Your task to perform on an android device: Search for "razer naga" on costco.com, select the first entry, and add it to the cart. Image 0: 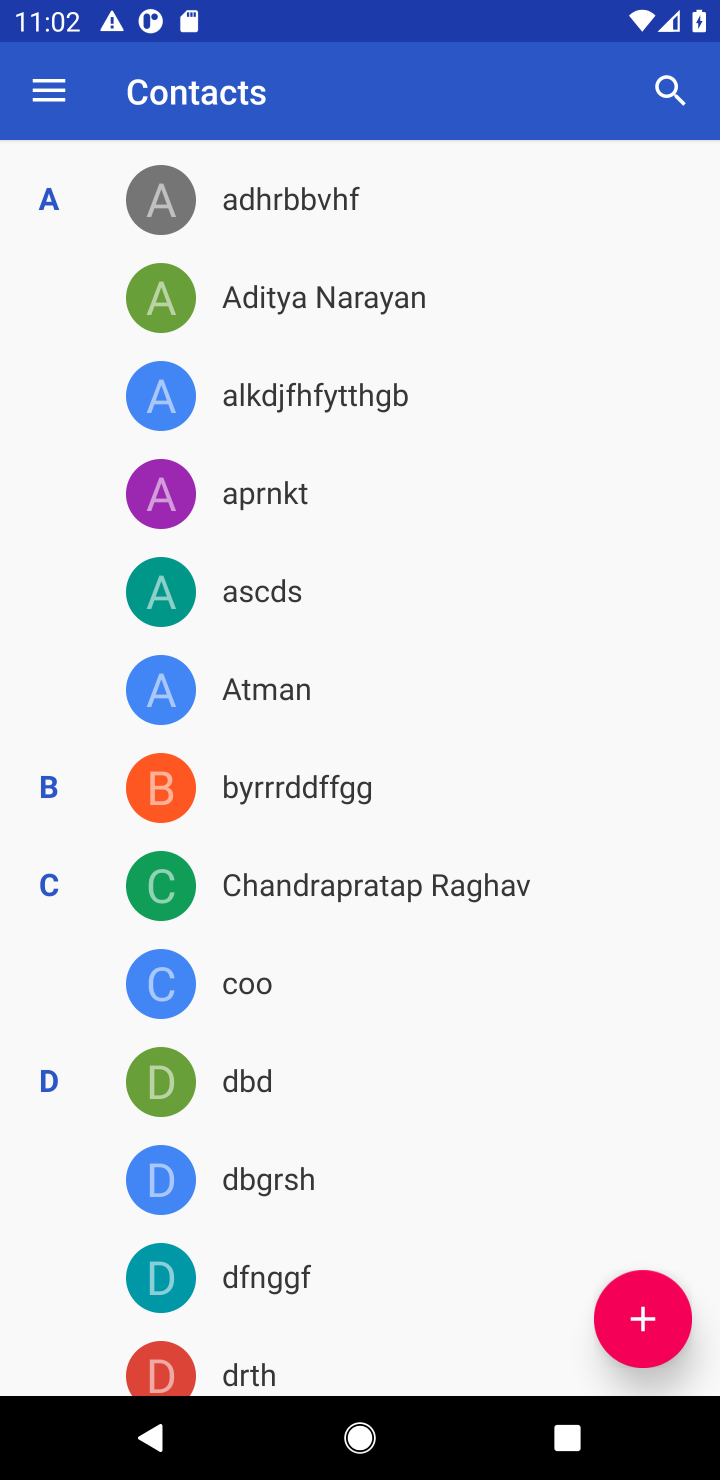
Step 0: press home button
Your task to perform on an android device: Search for "razer naga" on costco.com, select the first entry, and add it to the cart. Image 1: 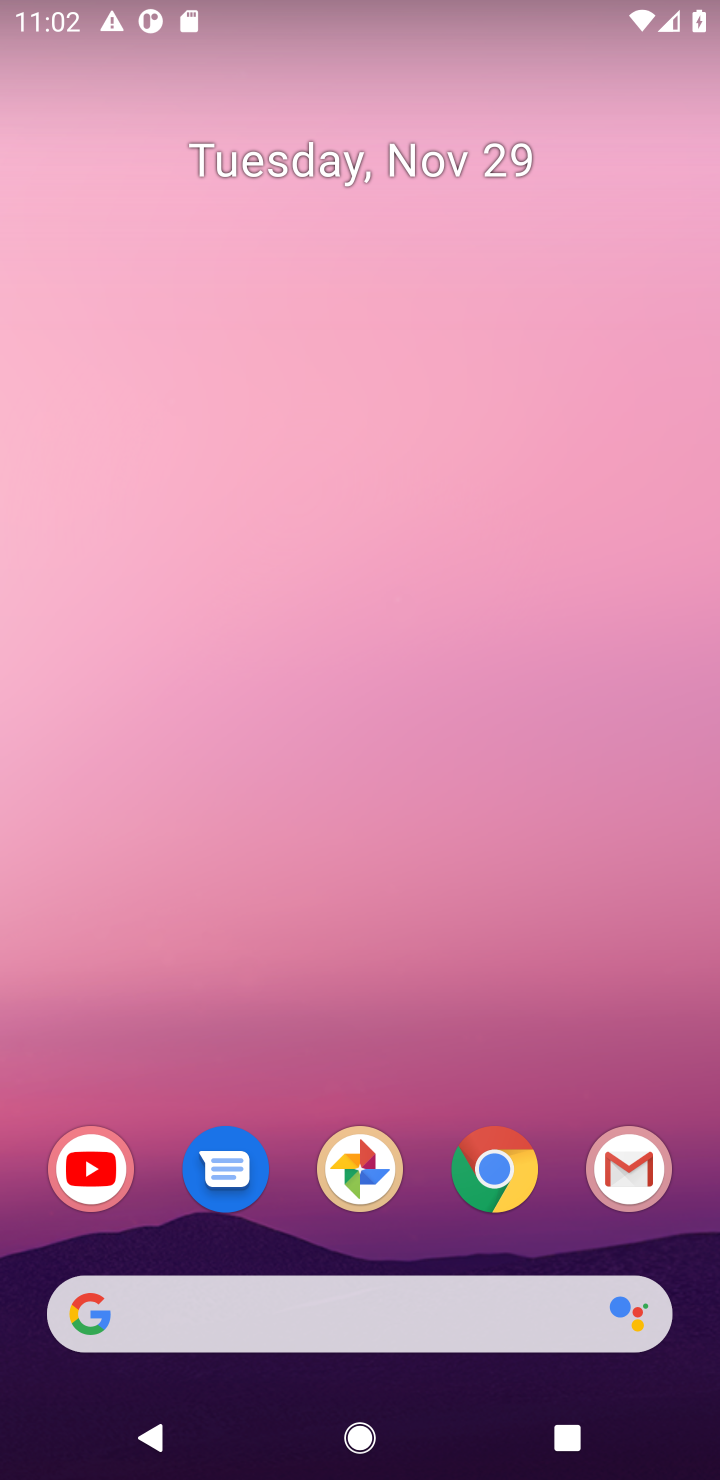
Step 1: click (377, 1345)
Your task to perform on an android device: Search for "razer naga" on costco.com, select the first entry, and add it to the cart. Image 2: 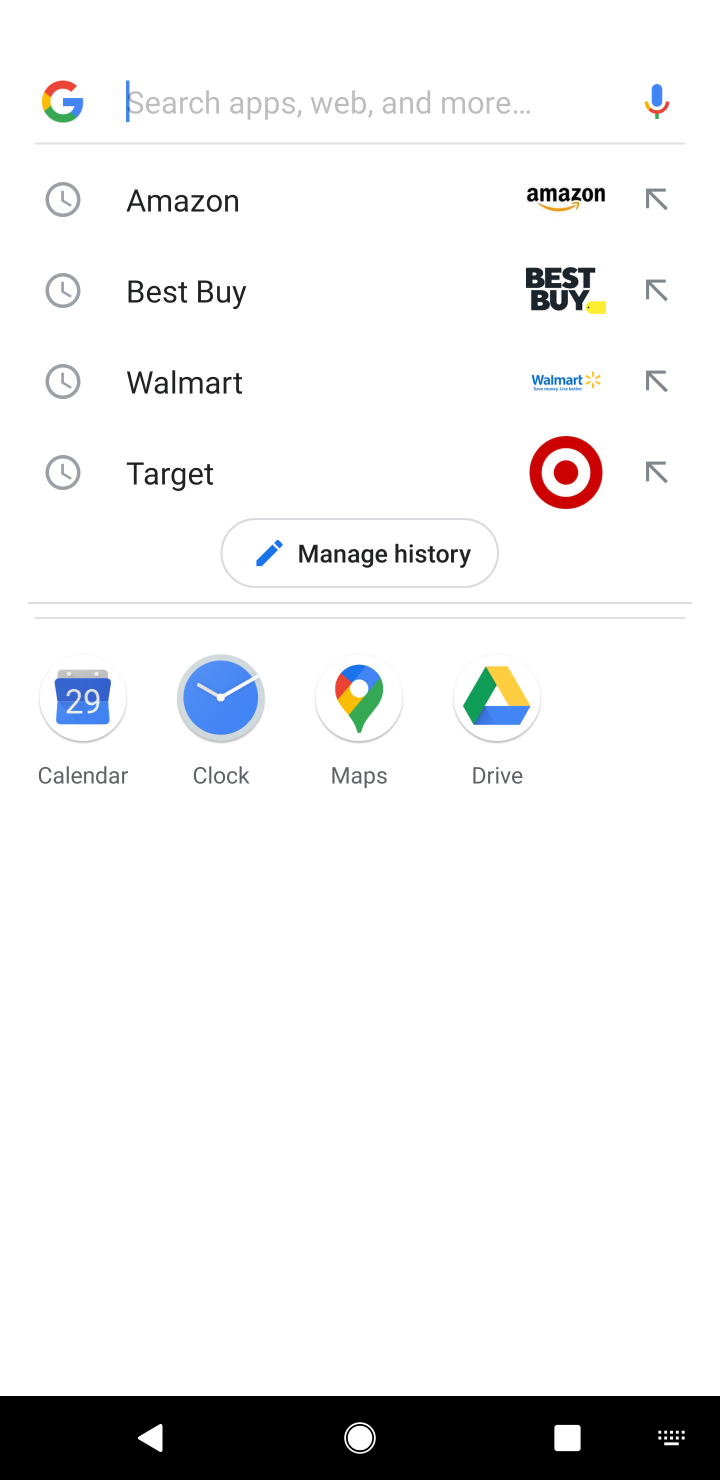
Step 2: type "costco.com"
Your task to perform on an android device: Search for "razer naga" on costco.com, select the first entry, and add it to the cart. Image 3: 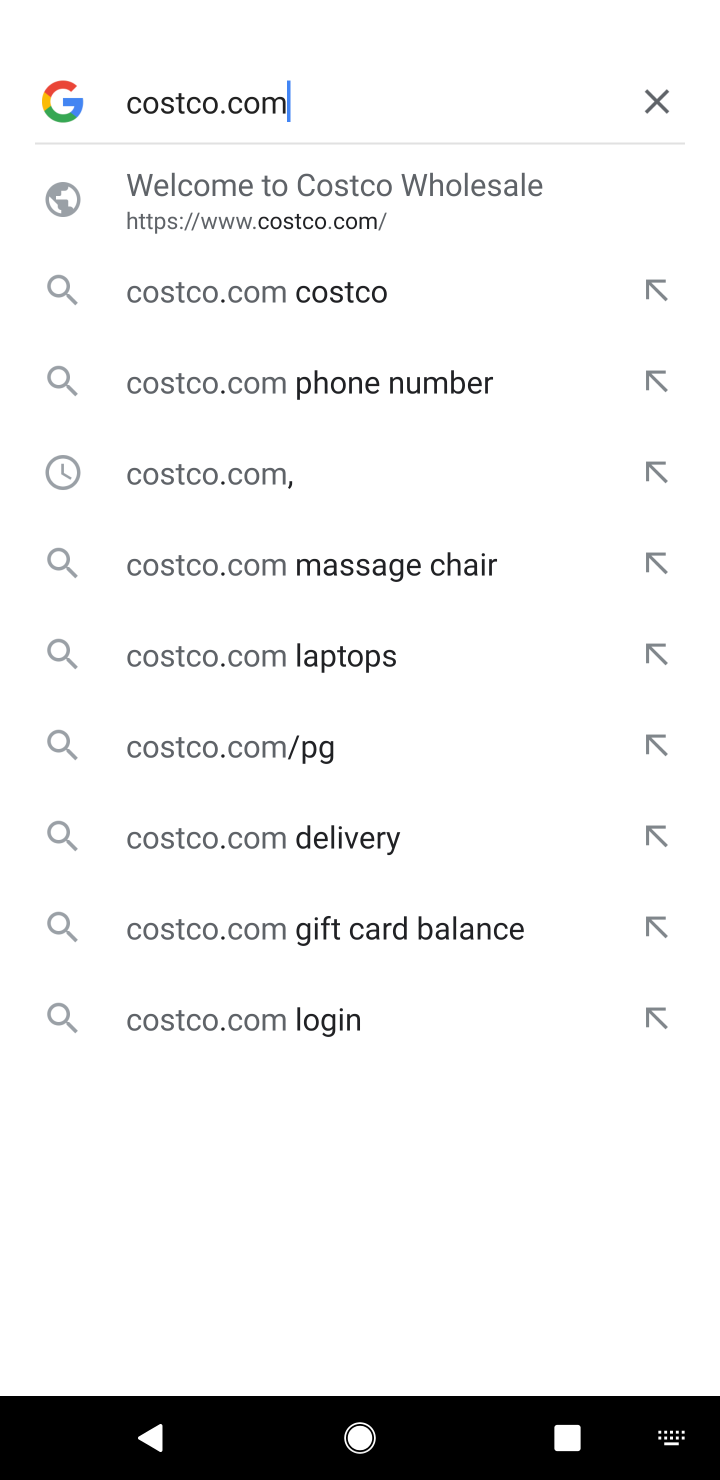
Step 3: click (254, 201)
Your task to perform on an android device: Search for "razer naga" on costco.com, select the first entry, and add it to the cart. Image 4: 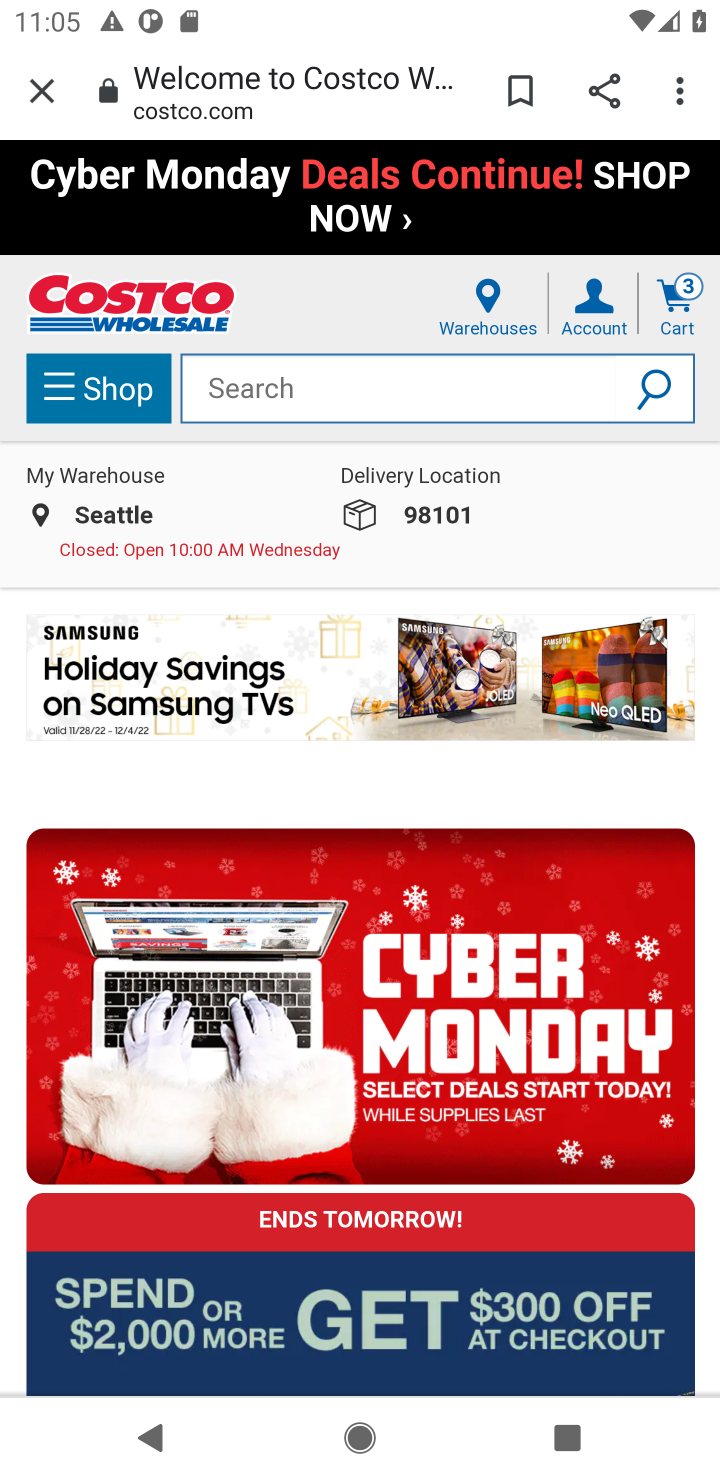
Step 4: task complete